Your task to perform on an android device: Check the weather Image 0: 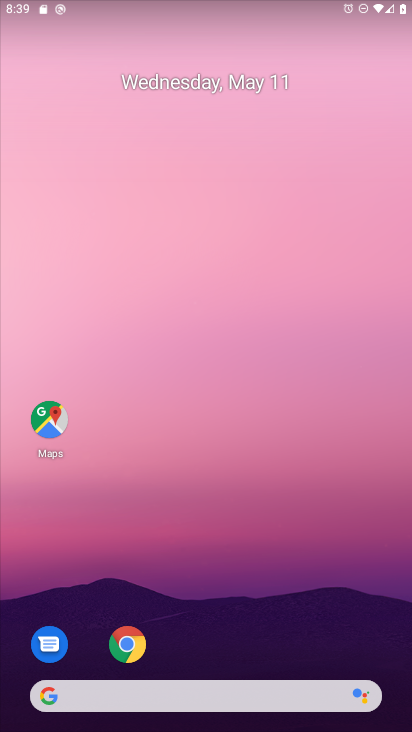
Step 0: click (219, 697)
Your task to perform on an android device: Check the weather Image 1: 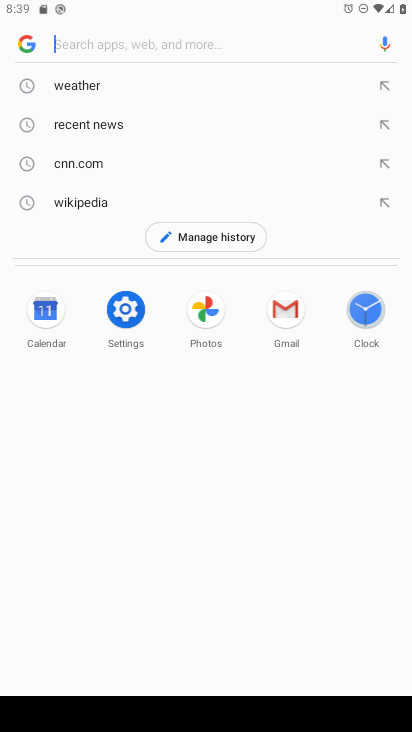
Step 1: click (79, 80)
Your task to perform on an android device: Check the weather Image 2: 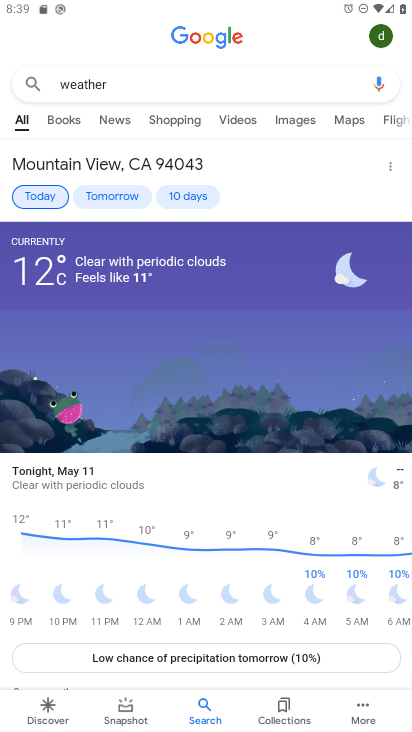
Step 2: task complete